Your task to perform on an android device: open device folders in google photos Image 0: 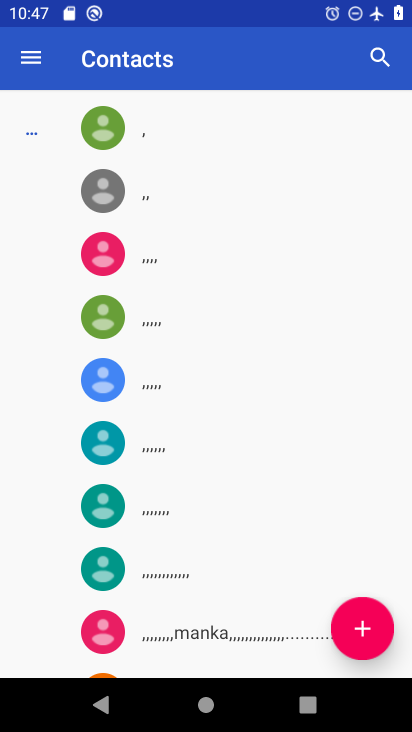
Step 0: press home button
Your task to perform on an android device: open device folders in google photos Image 1: 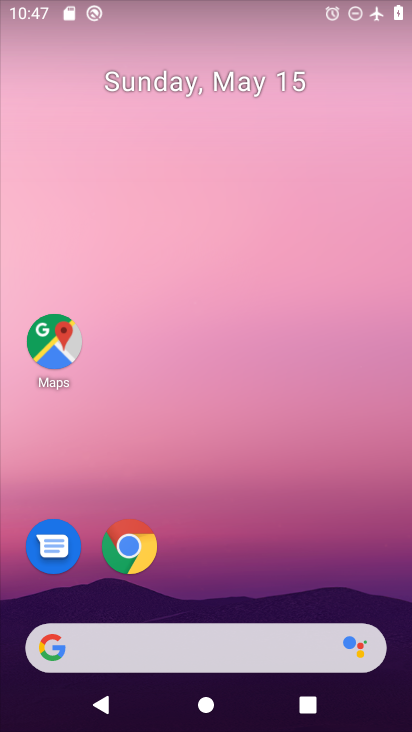
Step 1: drag from (265, 579) to (265, 540)
Your task to perform on an android device: open device folders in google photos Image 2: 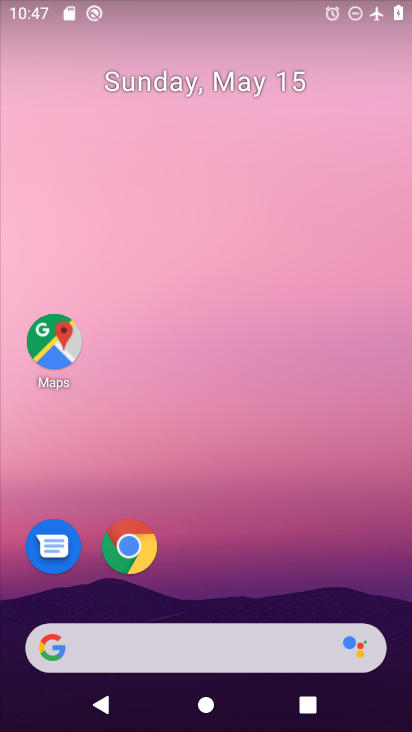
Step 2: drag from (264, 539) to (341, 97)
Your task to perform on an android device: open device folders in google photos Image 3: 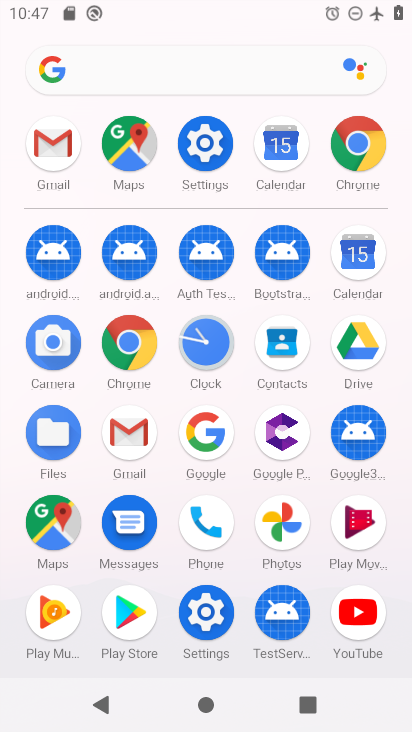
Step 3: click (290, 517)
Your task to perform on an android device: open device folders in google photos Image 4: 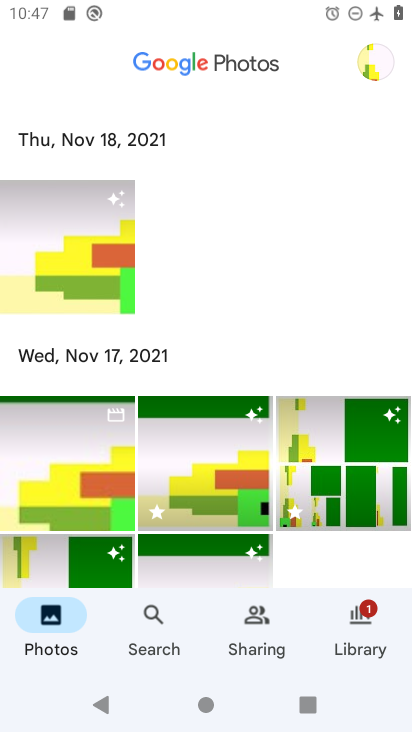
Step 4: click (356, 633)
Your task to perform on an android device: open device folders in google photos Image 5: 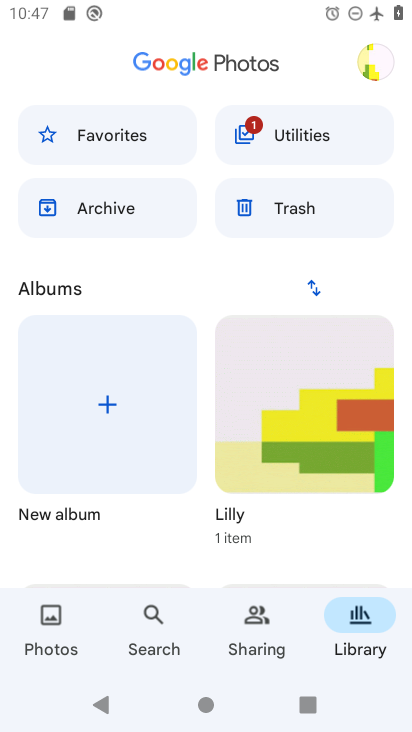
Step 5: click (312, 130)
Your task to perform on an android device: open device folders in google photos Image 6: 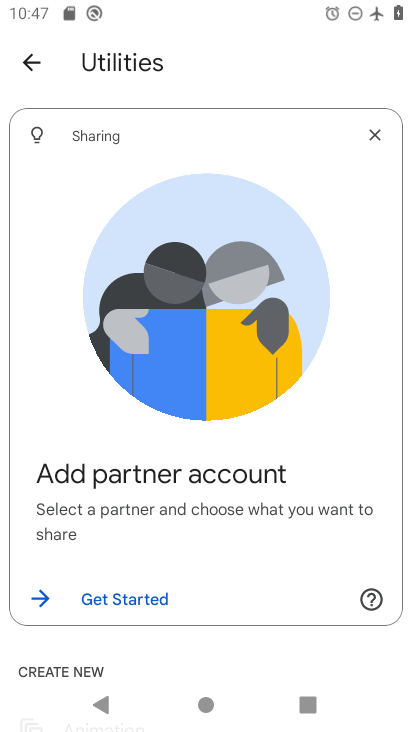
Step 6: drag from (291, 449) to (410, 136)
Your task to perform on an android device: open device folders in google photos Image 7: 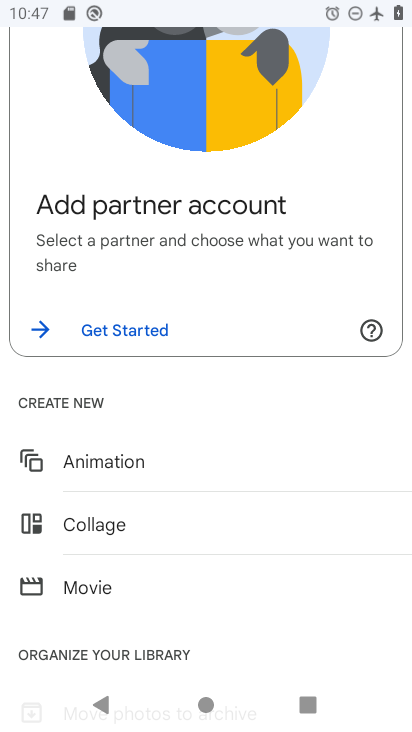
Step 7: drag from (236, 557) to (324, 165)
Your task to perform on an android device: open device folders in google photos Image 8: 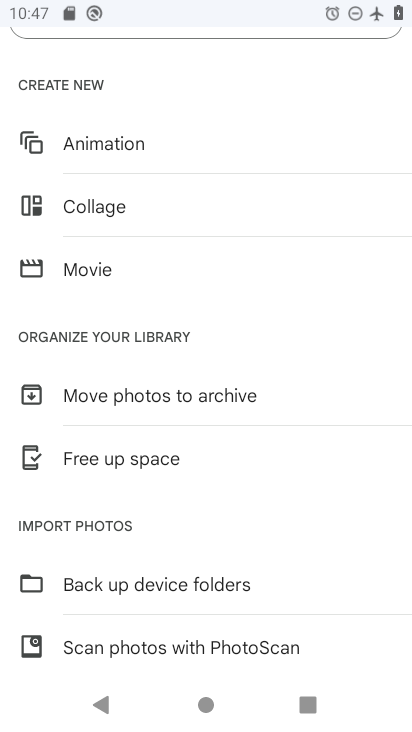
Step 8: drag from (250, 483) to (312, 282)
Your task to perform on an android device: open device folders in google photos Image 9: 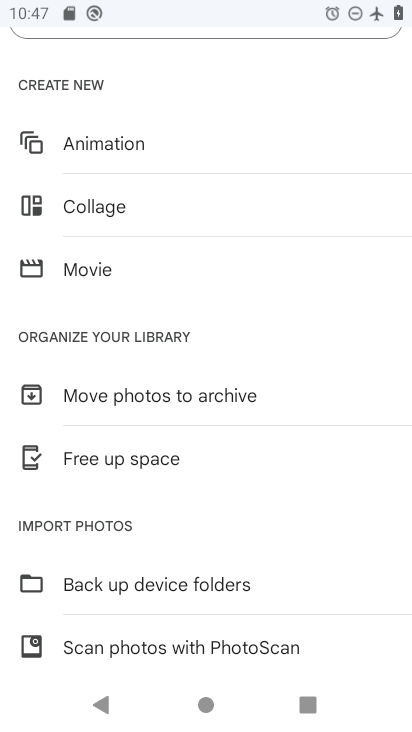
Step 9: click (186, 589)
Your task to perform on an android device: open device folders in google photos Image 10: 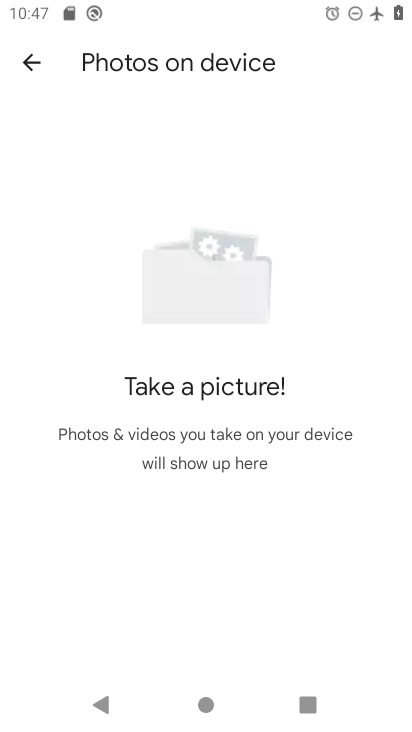
Step 10: task complete